Your task to perform on an android device: set default search engine in the chrome app Image 0: 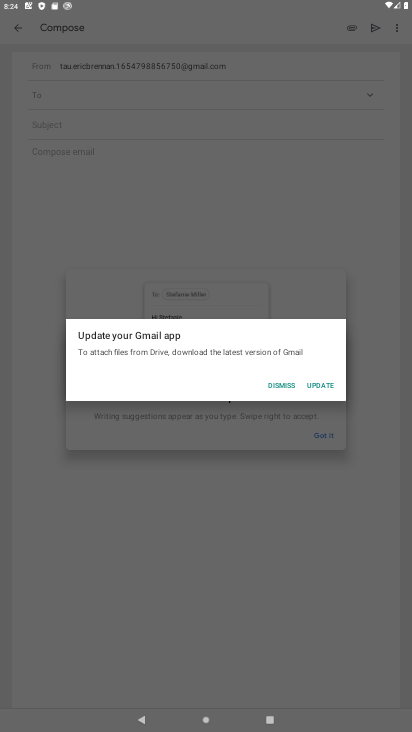
Step 0: press home button
Your task to perform on an android device: set default search engine in the chrome app Image 1: 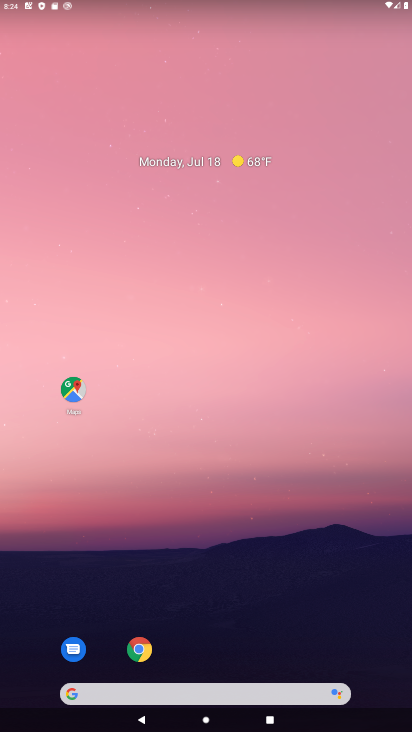
Step 1: click (145, 650)
Your task to perform on an android device: set default search engine in the chrome app Image 2: 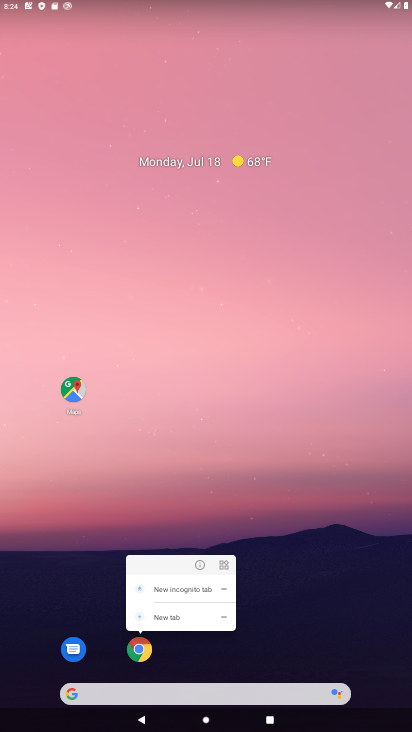
Step 2: click (141, 643)
Your task to perform on an android device: set default search engine in the chrome app Image 3: 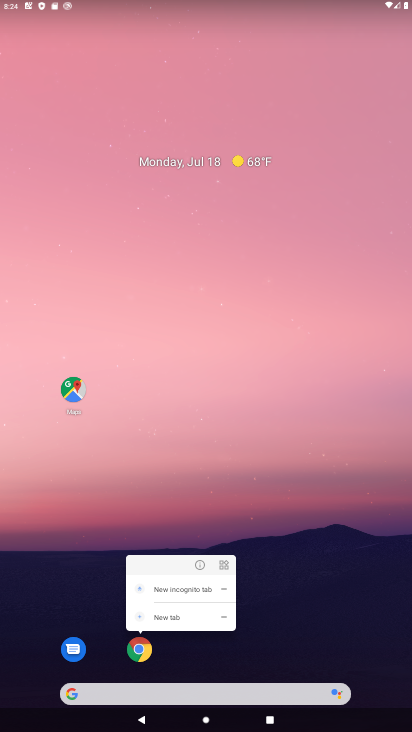
Step 3: click (141, 643)
Your task to perform on an android device: set default search engine in the chrome app Image 4: 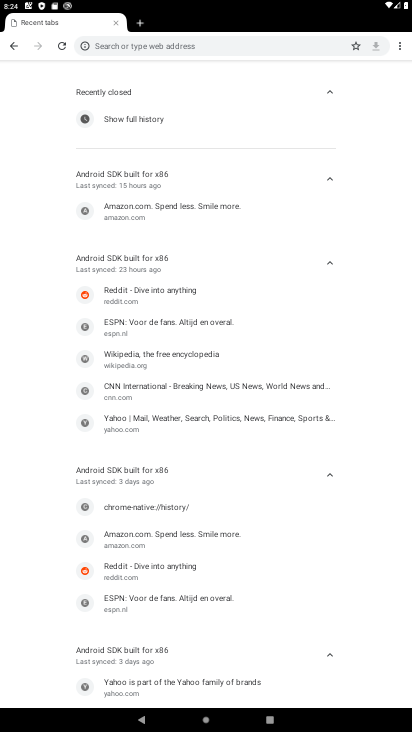
Step 4: click (403, 43)
Your task to perform on an android device: set default search engine in the chrome app Image 5: 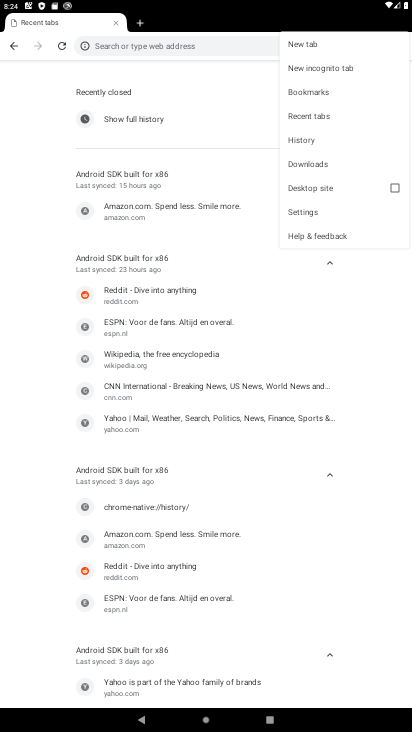
Step 5: click (306, 211)
Your task to perform on an android device: set default search engine in the chrome app Image 6: 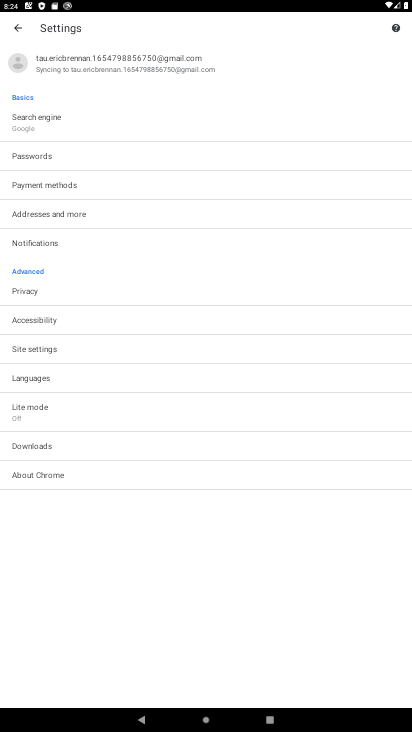
Step 6: click (52, 120)
Your task to perform on an android device: set default search engine in the chrome app Image 7: 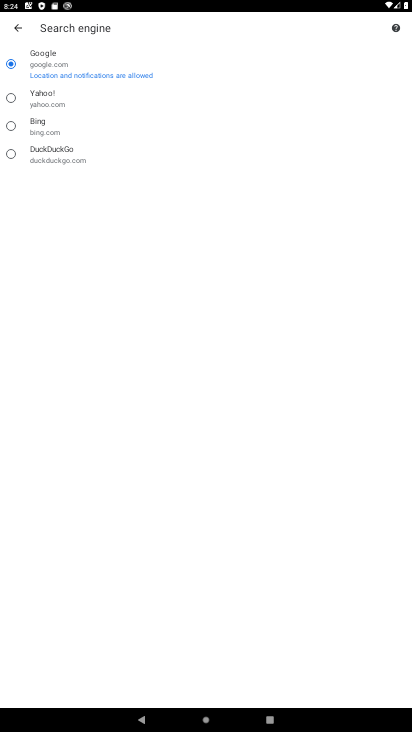
Step 7: task complete